Your task to perform on an android device: stop showing notifications on the lock screen Image 0: 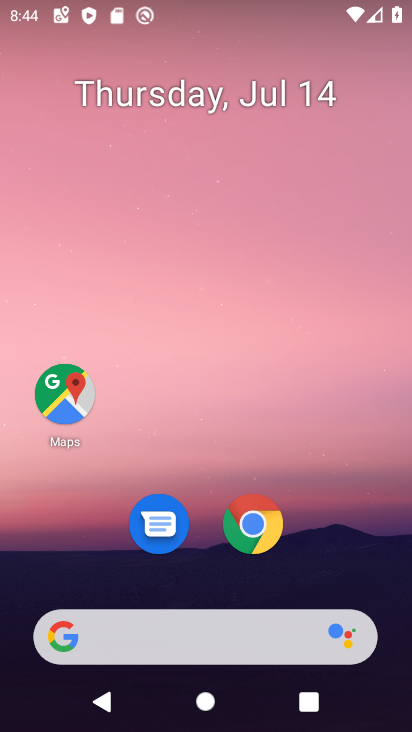
Step 0: drag from (336, 537) to (306, 13)
Your task to perform on an android device: stop showing notifications on the lock screen Image 1: 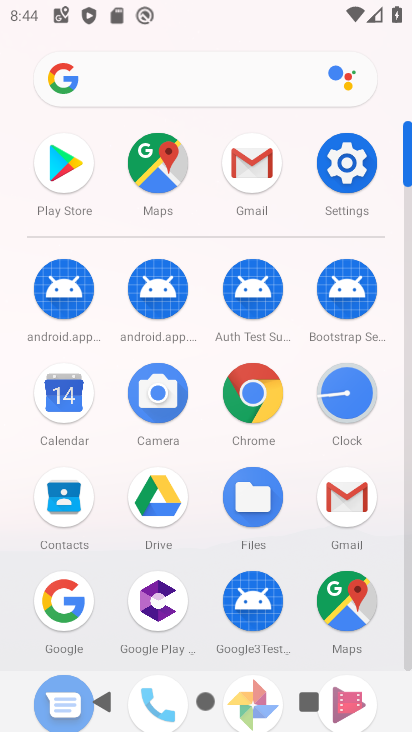
Step 1: click (346, 152)
Your task to perform on an android device: stop showing notifications on the lock screen Image 2: 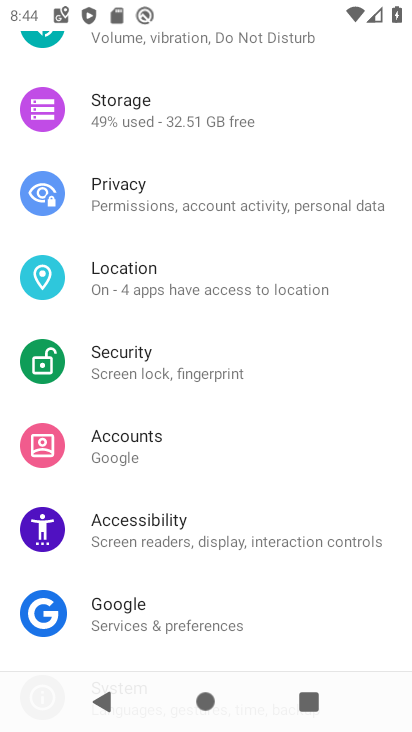
Step 2: drag from (274, 120) to (259, 582)
Your task to perform on an android device: stop showing notifications on the lock screen Image 3: 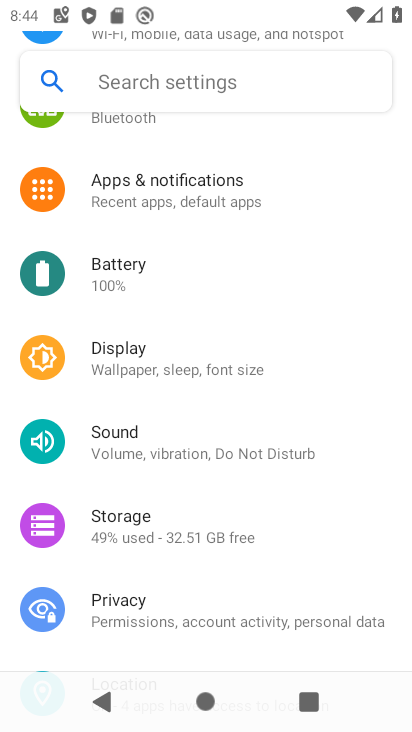
Step 3: click (217, 202)
Your task to perform on an android device: stop showing notifications on the lock screen Image 4: 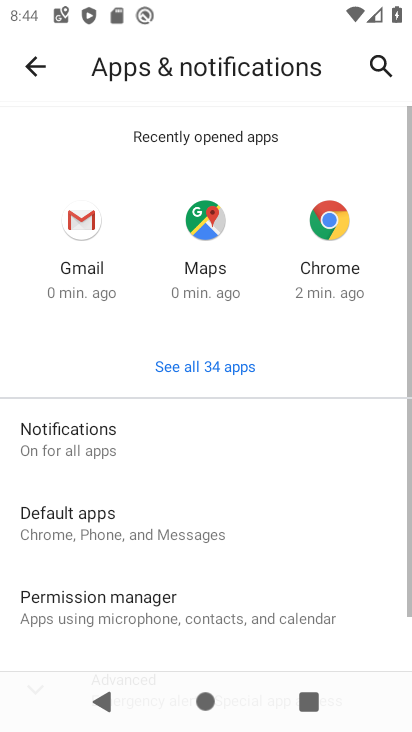
Step 4: click (82, 424)
Your task to perform on an android device: stop showing notifications on the lock screen Image 5: 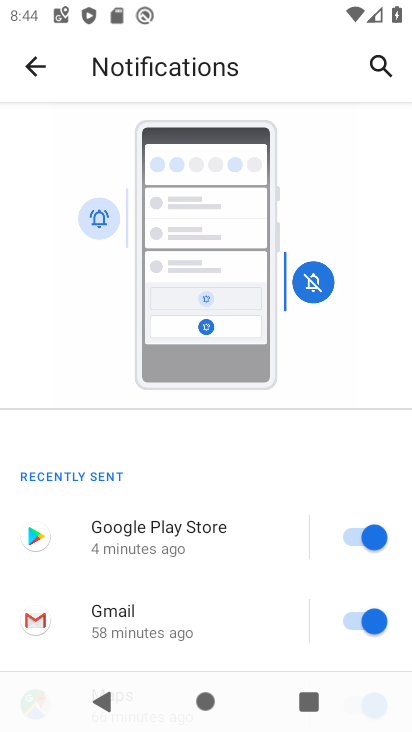
Step 5: drag from (160, 467) to (233, 247)
Your task to perform on an android device: stop showing notifications on the lock screen Image 6: 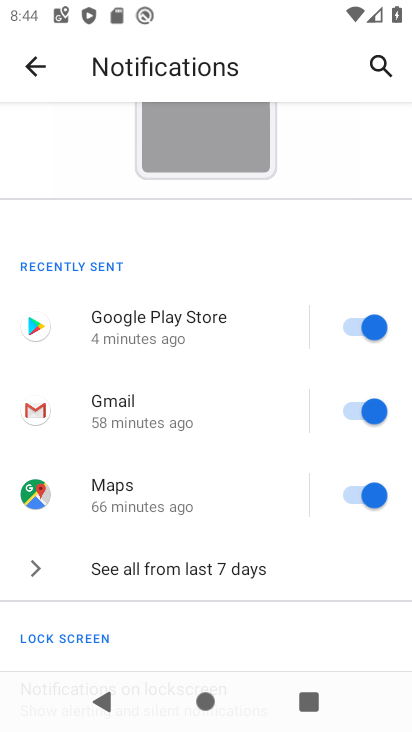
Step 6: drag from (262, 441) to (324, 171)
Your task to perform on an android device: stop showing notifications on the lock screen Image 7: 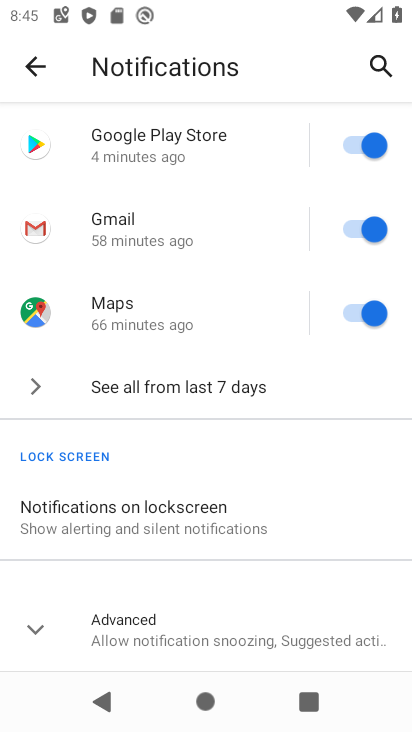
Step 7: click (183, 516)
Your task to perform on an android device: stop showing notifications on the lock screen Image 8: 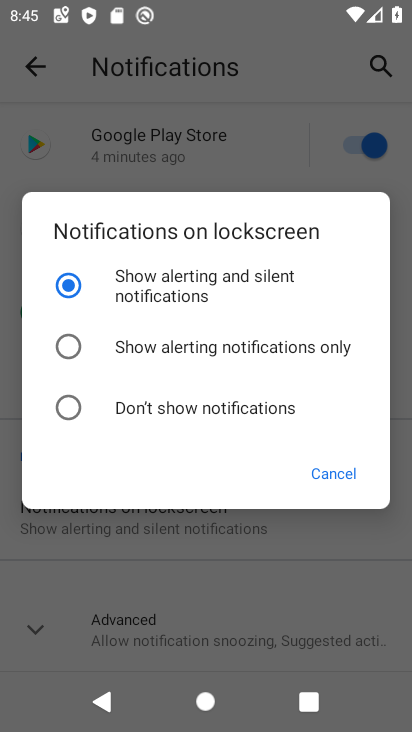
Step 8: click (73, 402)
Your task to perform on an android device: stop showing notifications on the lock screen Image 9: 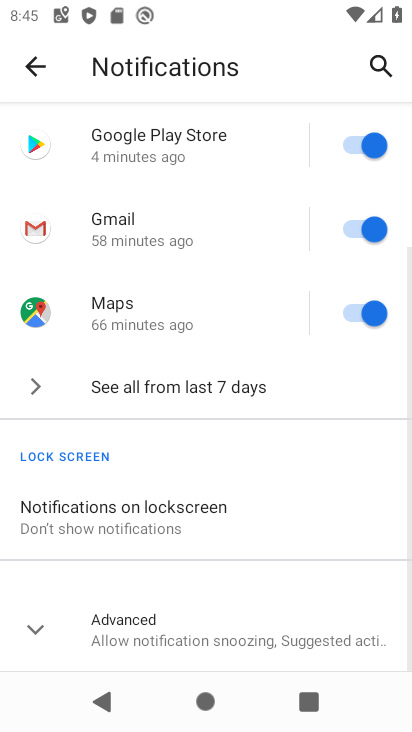
Step 9: task complete